Your task to perform on an android device: install app "Upside-Cash back on gas & food" Image 0: 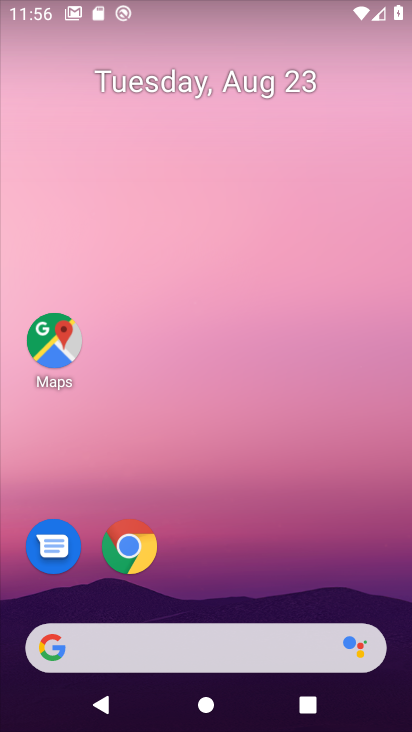
Step 0: drag from (210, 613) to (263, 232)
Your task to perform on an android device: install app "Upside-Cash back on gas & food" Image 1: 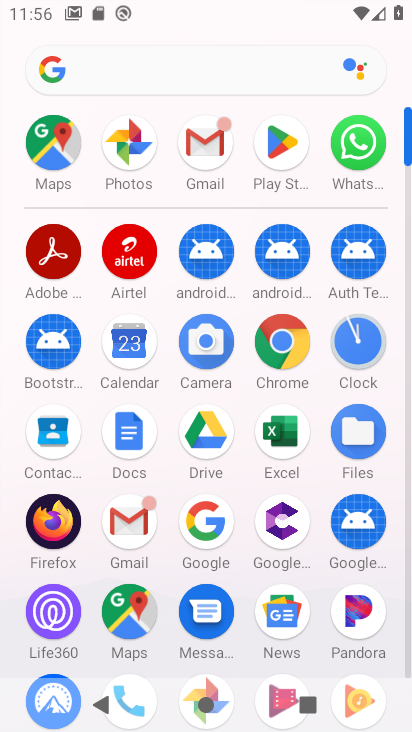
Step 1: click (282, 129)
Your task to perform on an android device: install app "Upside-Cash back on gas & food" Image 2: 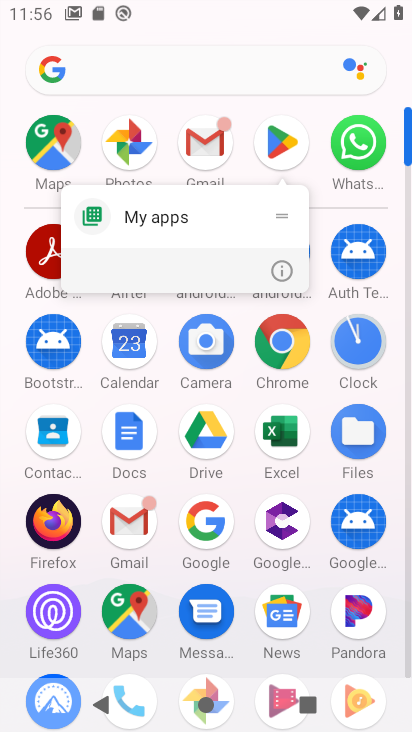
Step 2: click (281, 137)
Your task to perform on an android device: install app "Upside-Cash back on gas & food" Image 3: 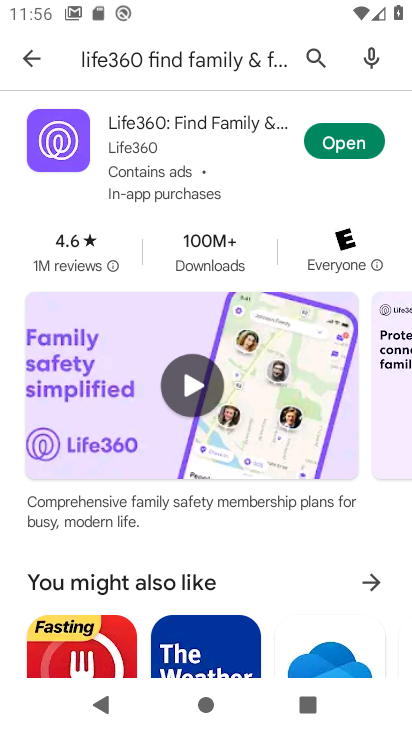
Step 3: click (26, 52)
Your task to perform on an android device: install app "Upside-Cash back on gas & food" Image 4: 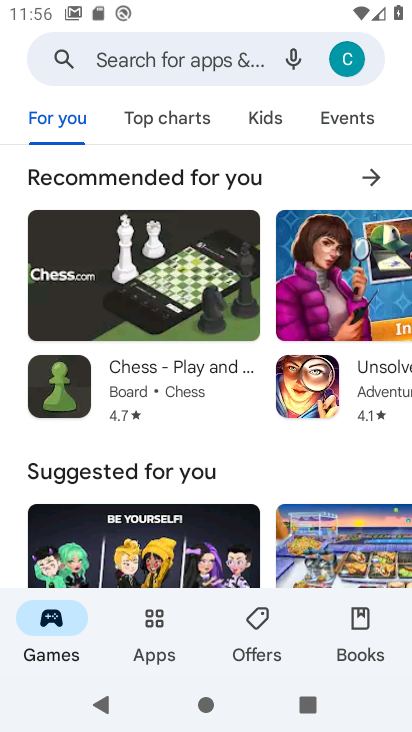
Step 4: click (149, 48)
Your task to perform on an android device: install app "Upside-Cash back on gas & food" Image 5: 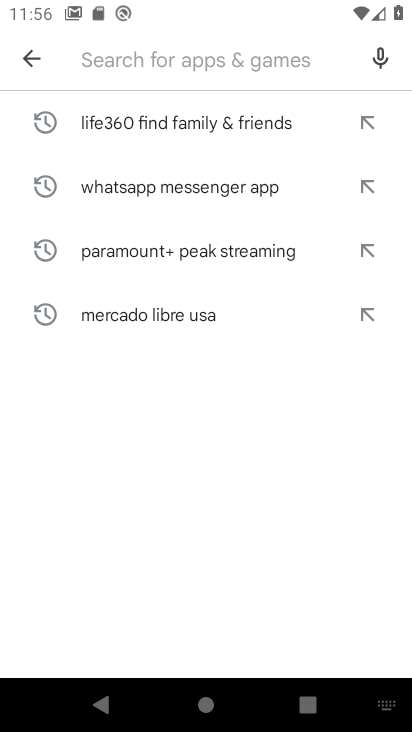
Step 5: type "Upside-Cash back on gas & food "
Your task to perform on an android device: install app "Upside-Cash back on gas & food" Image 6: 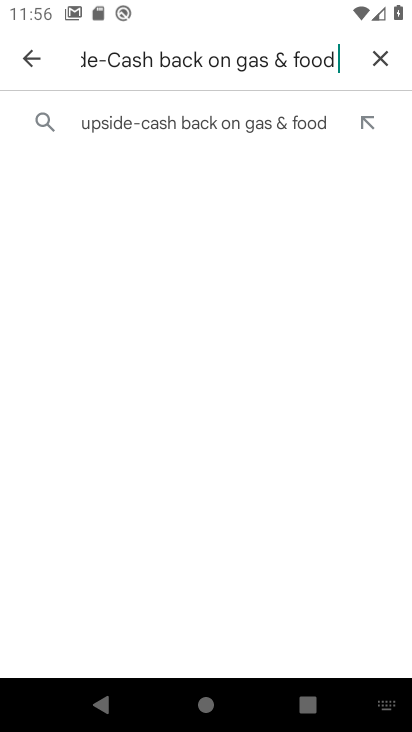
Step 6: click (158, 111)
Your task to perform on an android device: install app "Upside-Cash back on gas & food" Image 7: 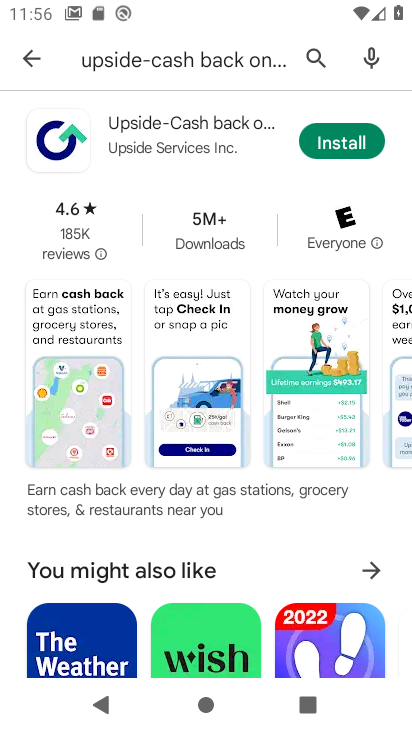
Step 7: click (361, 132)
Your task to perform on an android device: install app "Upside-Cash back on gas & food" Image 8: 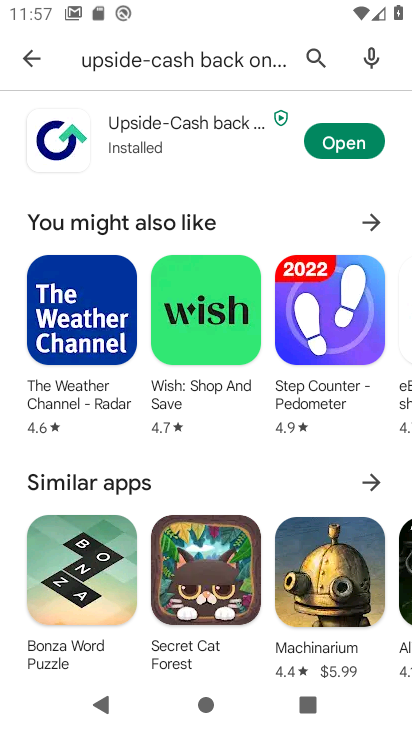
Step 8: task complete